Your task to perform on an android device: toggle priority inbox in the gmail app Image 0: 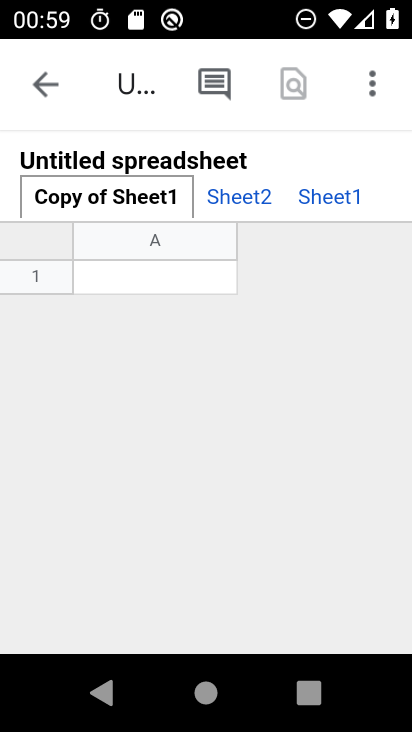
Step 0: press home button
Your task to perform on an android device: toggle priority inbox in the gmail app Image 1: 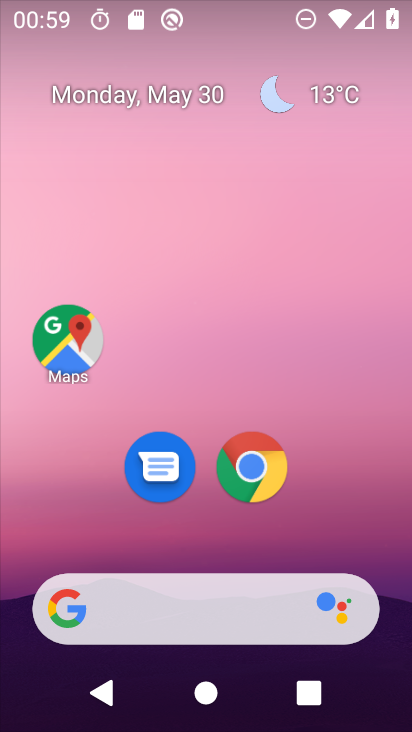
Step 1: drag from (207, 545) to (216, 193)
Your task to perform on an android device: toggle priority inbox in the gmail app Image 2: 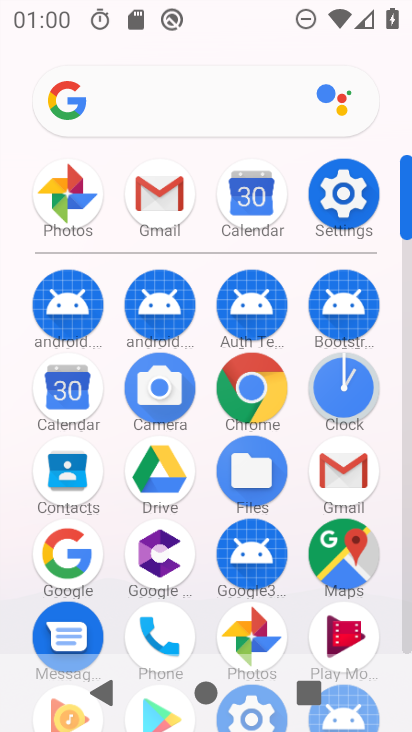
Step 2: click (147, 216)
Your task to perform on an android device: toggle priority inbox in the gmail app Image 3: 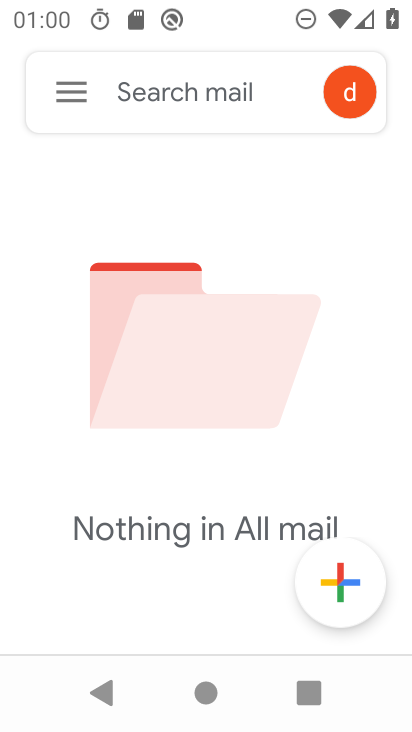
Step 3: click (56, 116)
Your task to perform on an android device: toggle priority inbox in the gmail app Image 4: 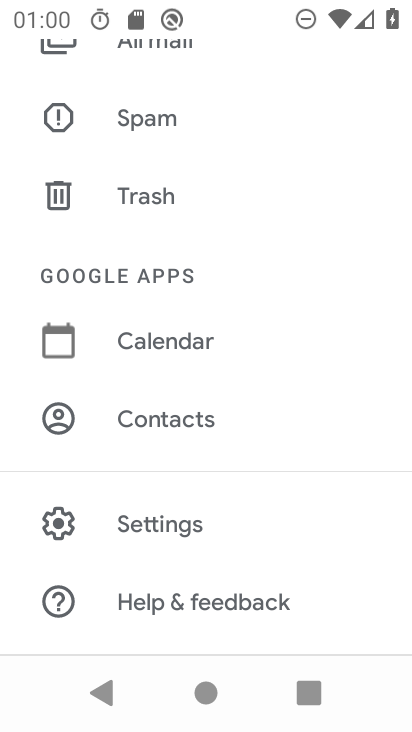
Step 4: click (154, 518)
Your task to perform on an android device: toggle priority inbox in the gmail app Image 5: 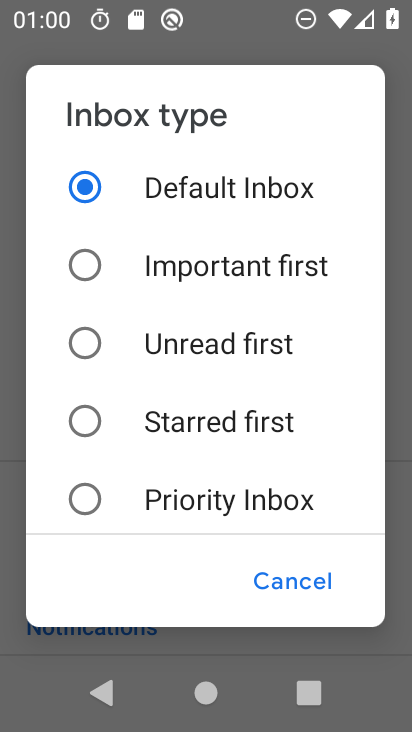
Step 5: click (168, 499)
Your task to perform on an android device: toggle priority inbox in the gmail app Image 6: 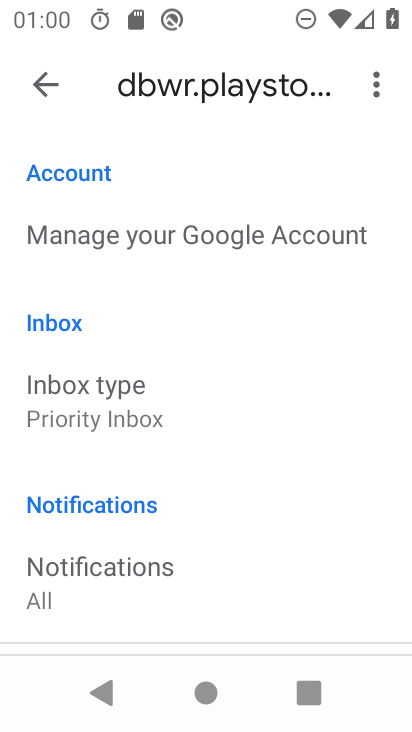
Step 6: task complete